Your task to perform on an android device: install app "Indeed Job Search" Image 0: 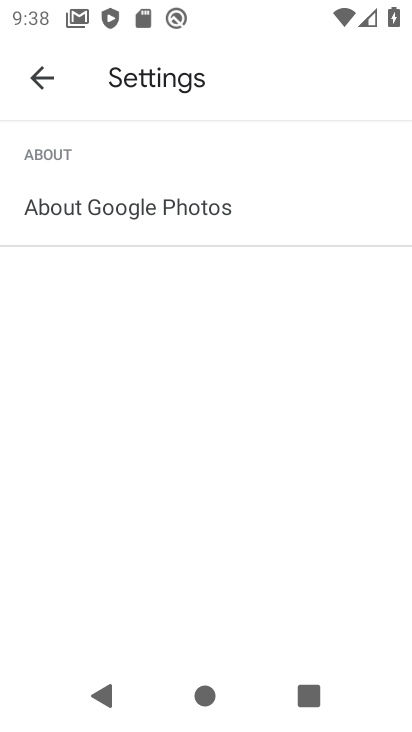
Step 0: drag from (200, 605) to (287, 222)
Your task to perform on an android device: install app "Indeed Job Search" Image 1: 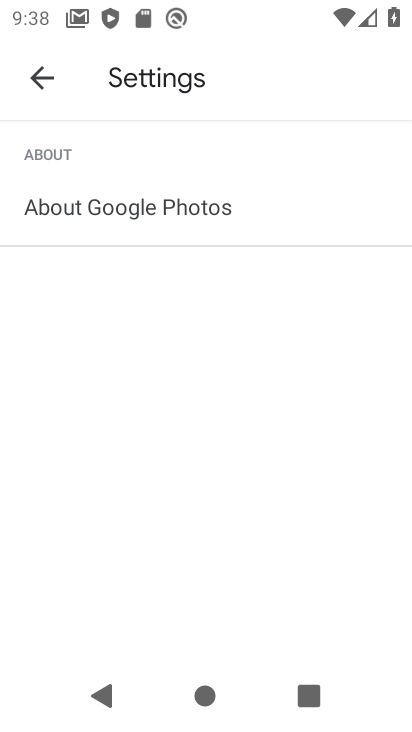
Step 1: press home button
Your task to perform on an android device: install app "Indeed Job Search" Image 2: 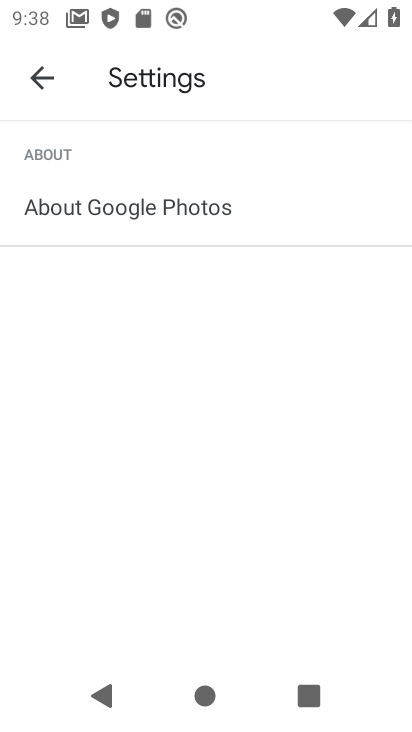
Step 2: drag from (154, 631) to (201, 138)
Your task to perform on an android device: install app "Indeed Job Search" Image 3: 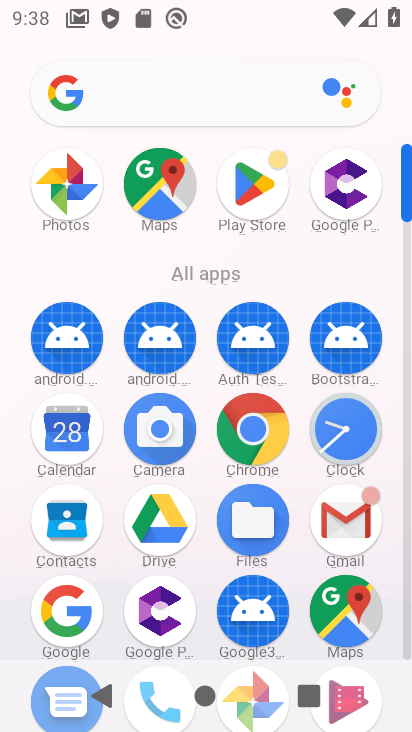
Step 3: click (228, 162)
Your task to perform on an android device: install app "Indeed Job Search" Image 4: 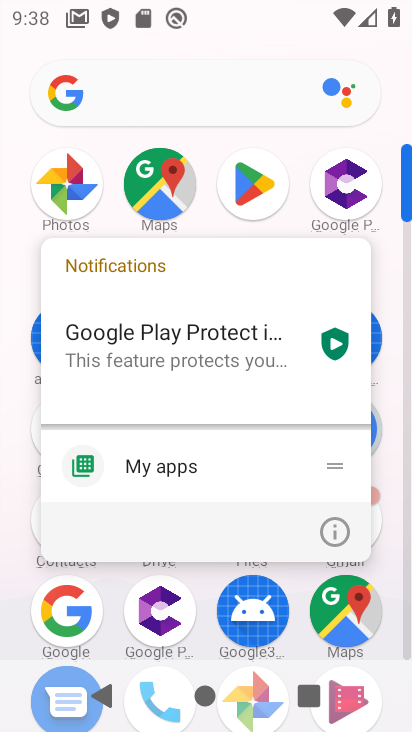
Step 4: click (335, 536)
Your task to perform on an android device: install app "Indeed Job Search" Image 5: 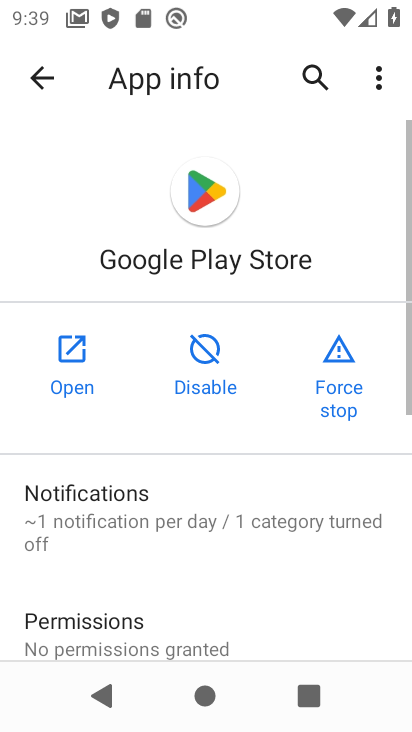
Step 5: click (81, 332)
Your task to perform on an android device: install app "Indeed Job Search" Image 6: 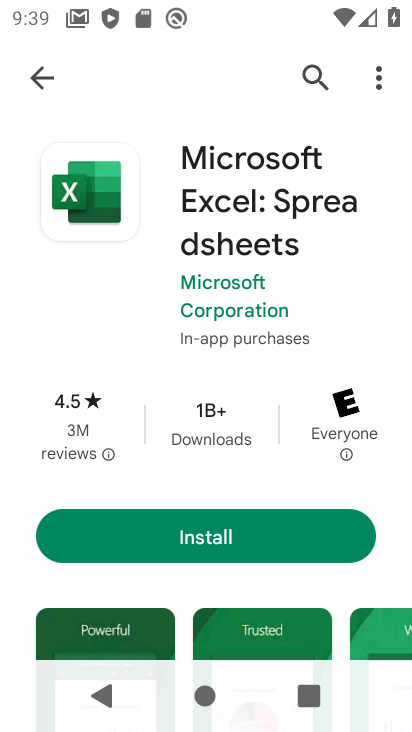
Step 6: drag from (193, 479) to (196, 133)
Your task to perform on an android device: install app "Indeed Job Search" Image 7: 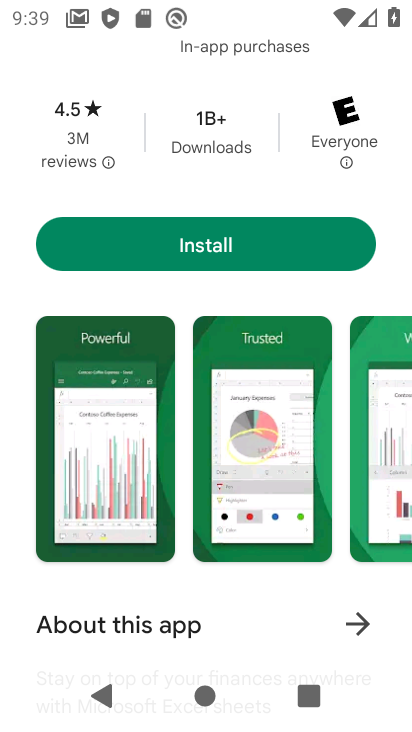
Step 7: drag from (217, 631) to (268, 214)
Your task to perform on an android device: install app "Indeed Job Search" Image 8: 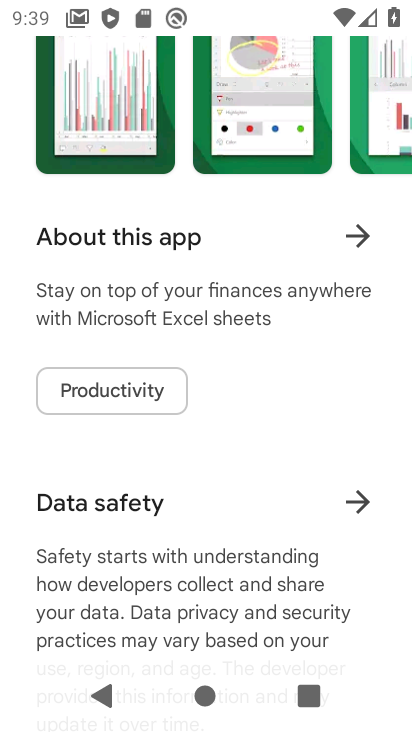
Step 8: drag from (191, 576) to (262, 223)
Your task to perform on an android device: install app "Indeed Job Search" Image 9: 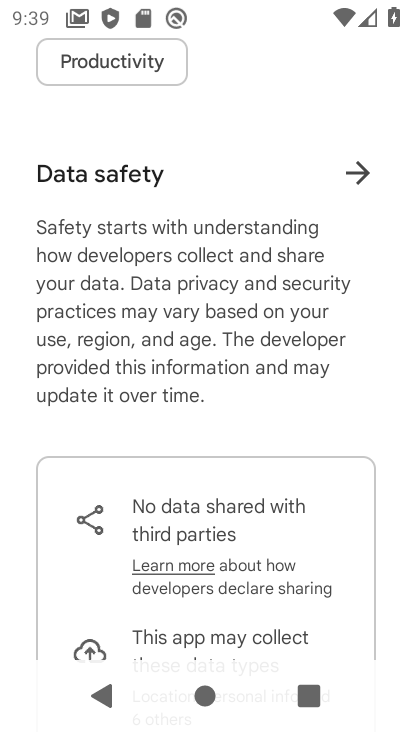
Step 9: drag from (210, 242) to (277, 510)
Your task to perform on an android device: install app "Indeed Job Search" Image 10: 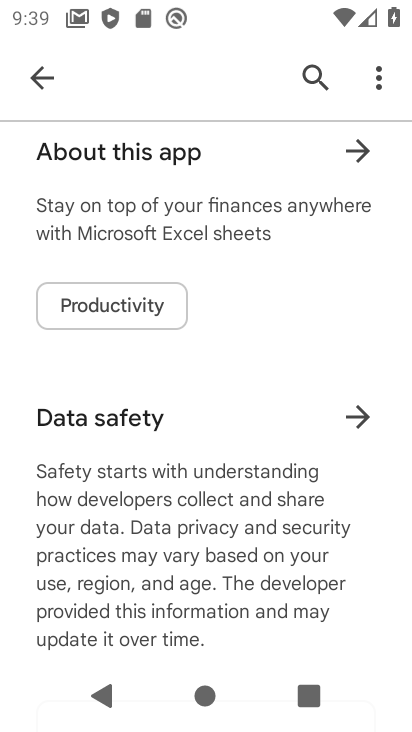
Step 10: drag from (246, 283) to (341, 724)
Your task to perform on an android device: install app "Indeed Job Search" Image 11: 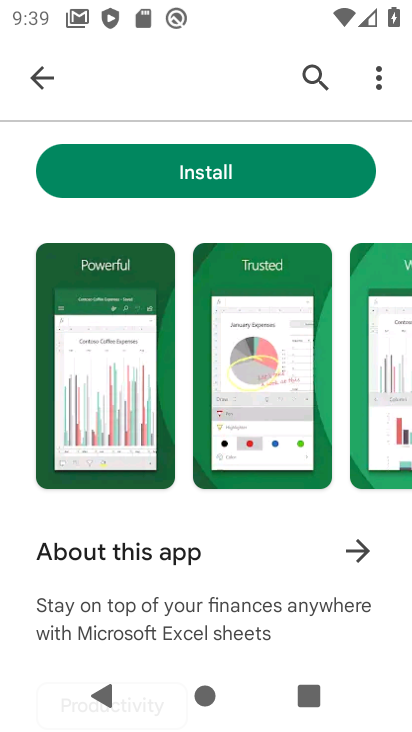
Step 11: drag from (175, 233) to (322, 731)
Your task to perform on an android device: install app "Indeed Job Search" Image 12: 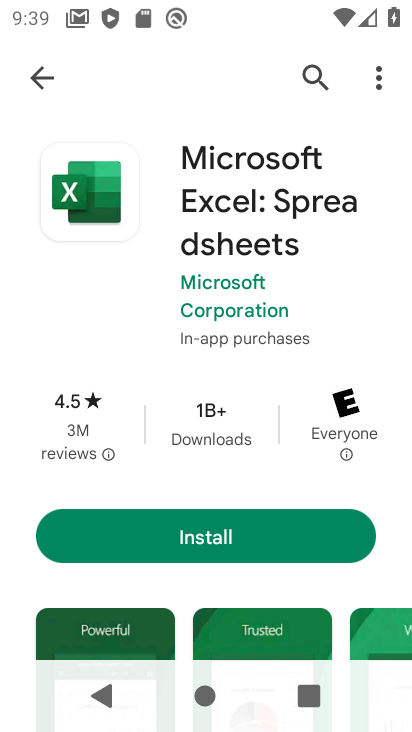
Step 12: click (319, 64)
Your task to perform on an android device: install app "Indeed Job Search" Image 13: 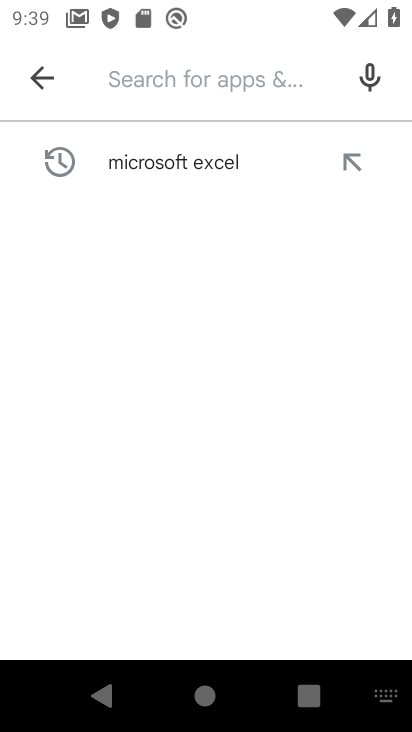
Step 13: type "Indeed Job Search"
Your task to perform on an android device: install app "Indeed Job Search" Image 14: 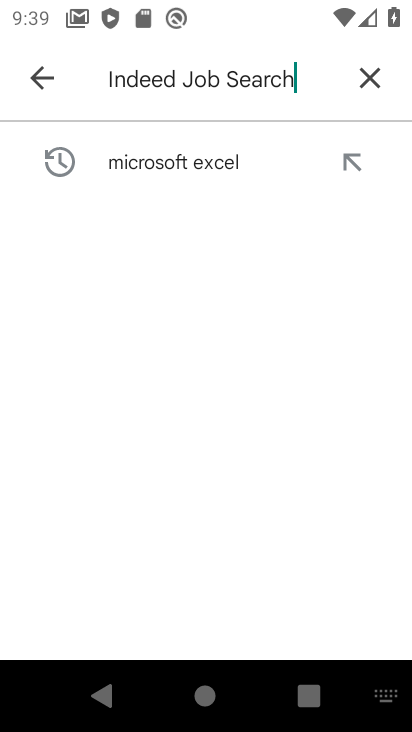
Step 14: type ""
Your task to perform on an android device: install app "Indeed Job Search" Image 15: 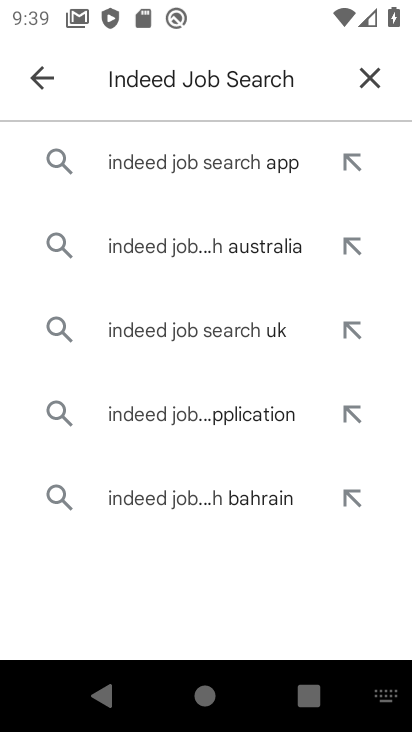
Step 15: click (235, 167)
Your task to perform on an android device: install app "Indeed Job Search" Image 16: 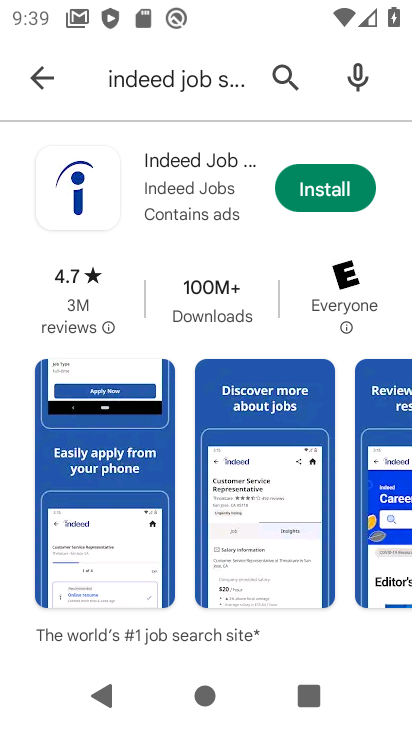
Step 16: drag from (256, 542) to (323, 698)
Your task to perform on an android device: install app "Indeed Job Search" Image 17: 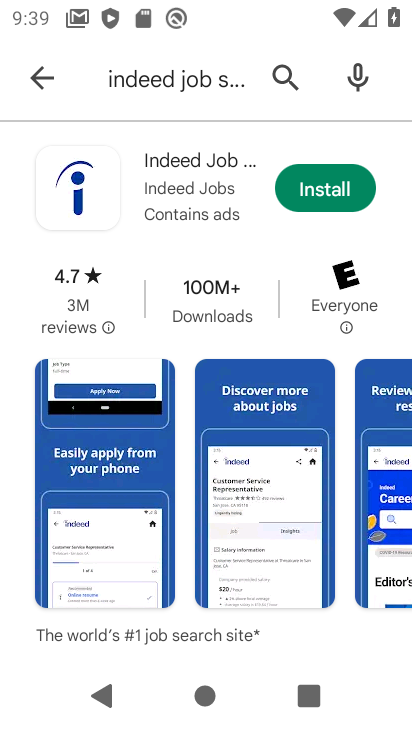
Step 17: drag from (249, 270) to (258, 611)
Your task to perform on an android device: install app "Indeed Job Search" Image 18: 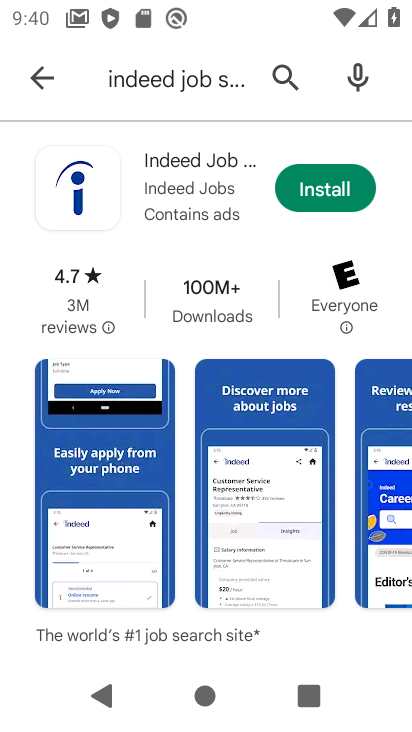
Step 18: click (338, 674)
Your task to perform on an android device: install app "Indeed Job Search" Image 19: 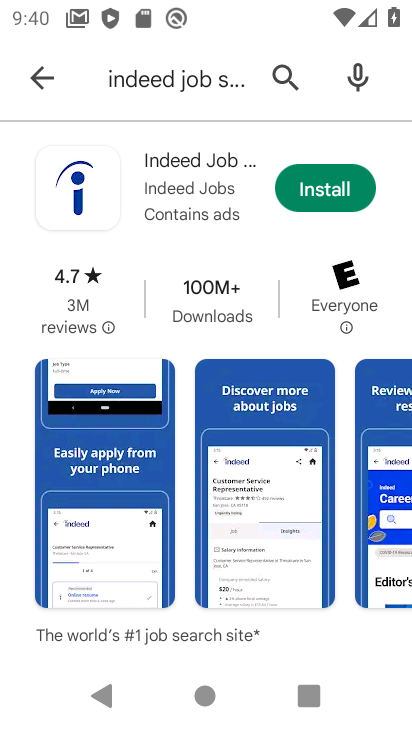
Step 19: drag from (225, 221) to (197, 591)
Your task to perform on an android device: install app "Indeed Job Search" Image 20: 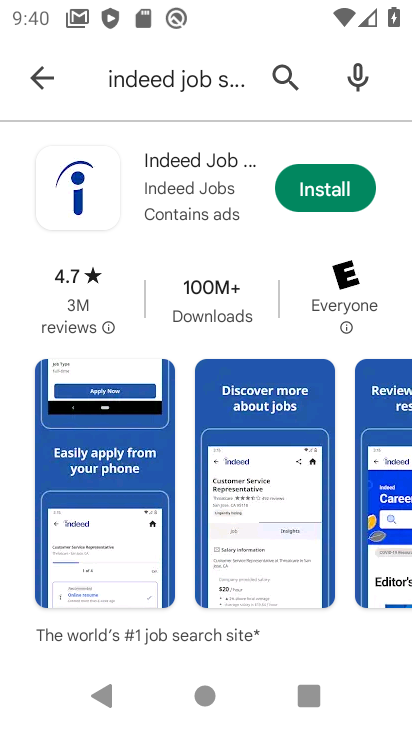
Step 20: click (318, 180)
Your task to perform on an android device: install app "Indeed Job Search" Image 21: 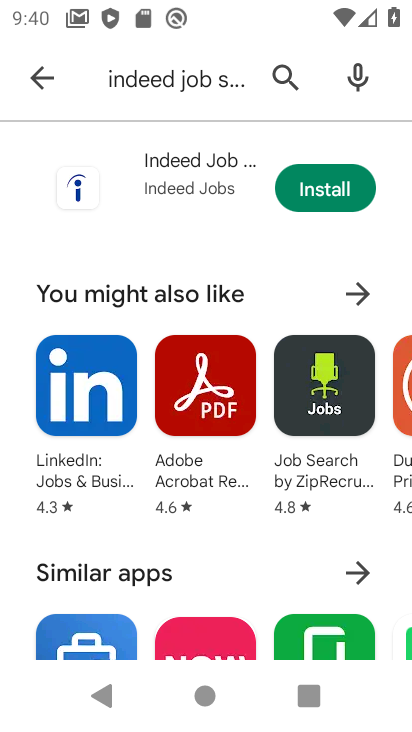
Step 21: drag from (236, 341) to (271, 577)
Your task to perform on an android device: install app "Indeed Job Search" Image 22: 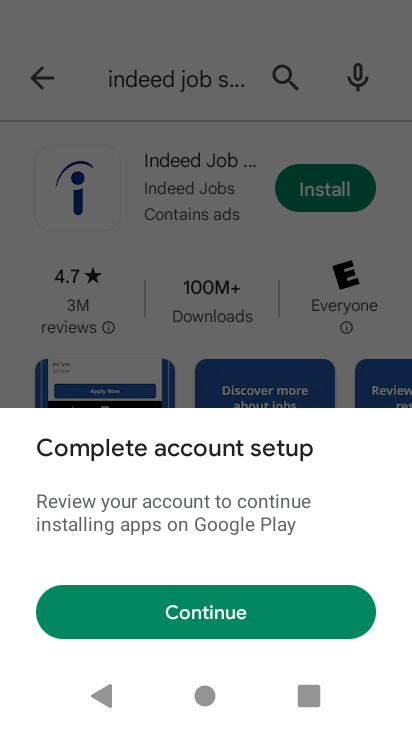
Step 22: click (183, 627)
Your task to perform on an android device: install app "Indeed Job Search" Image 23: 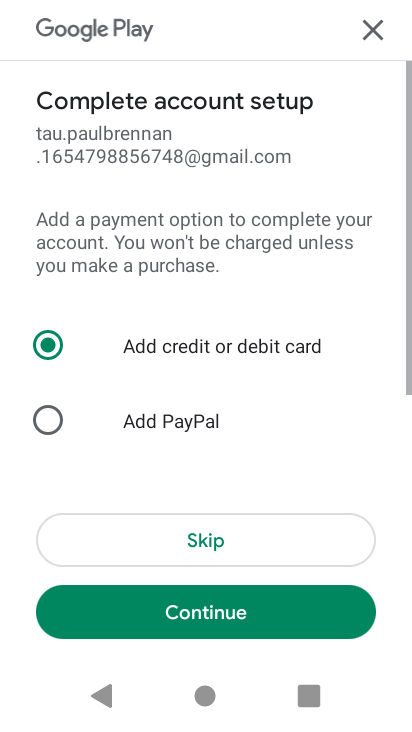
Step 23: click (174, 533)
Your task to perform on an android device: install app "Indeed Job Search" Image 24: 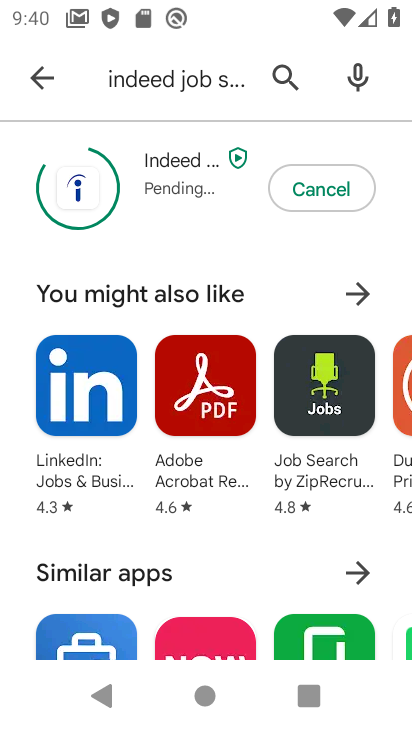
Step 24: click (186, 157)
Your task to perform on an android device: install app "Indeed Job Search" Image 25: 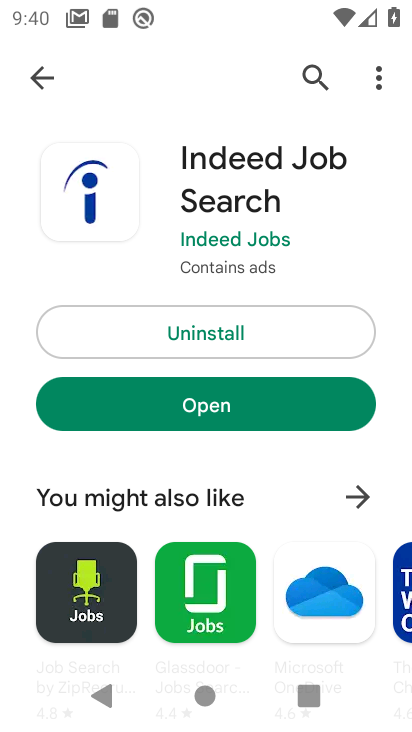
Step 25: task complete